Your task to perform on an android device: open app "Adobe Acrobat Reader: Edit PDF" (install if not already installed) Image 0: 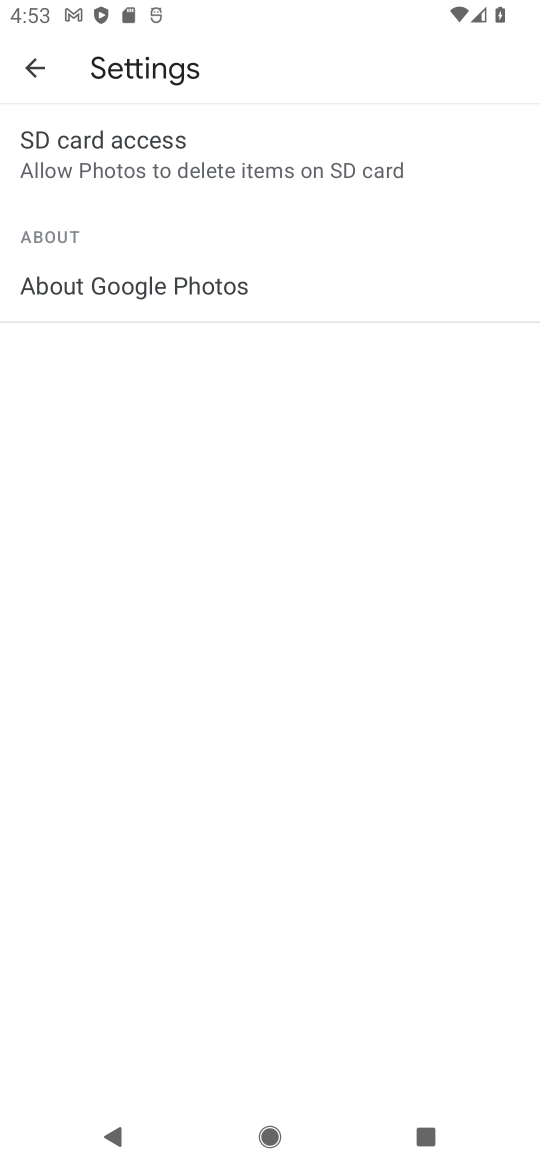
Step 0: press home button
Your task to perform on an android device: open app "Adobe Acrobat Reader: Edit PDF" (install if not already installed) Image 1: 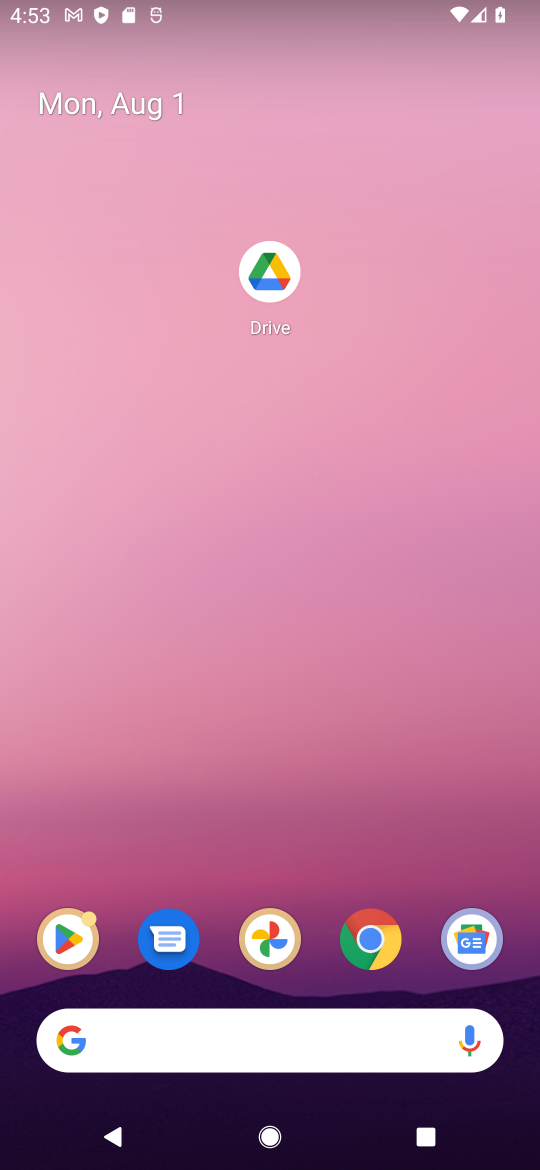
Step 1: click (51, 946)
Your task to perform on an android device: open app "Adobe Acrobat Reader: Edit PDF" (install if not already installed) Image 2: 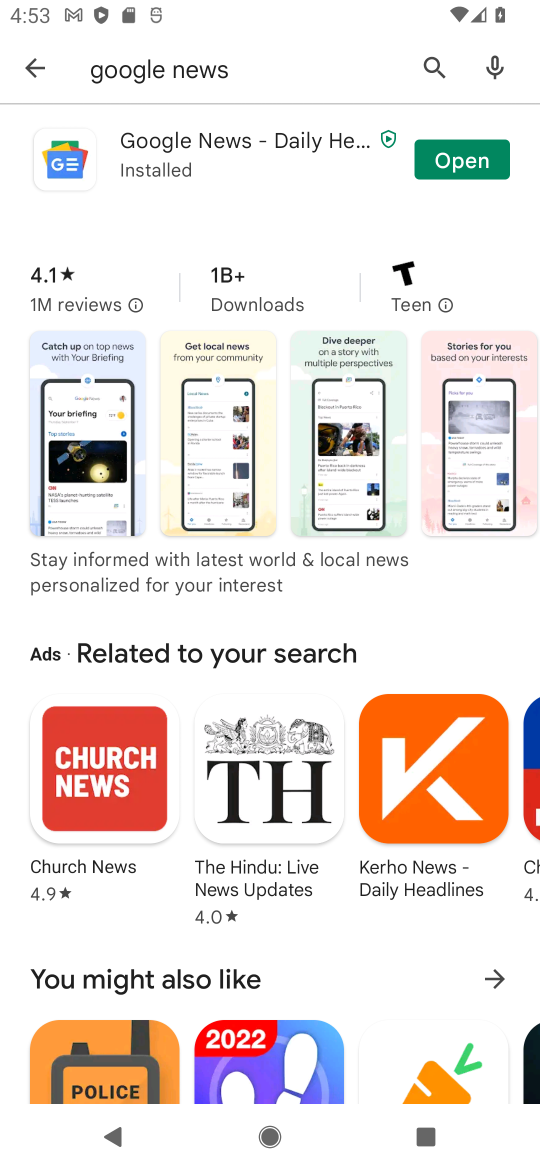
Step 2: click (427, 60)
Your task to perform on an android device: open app "Adobe Acrobat Reader: Edit PDF" (install if not already installed) Image 3: 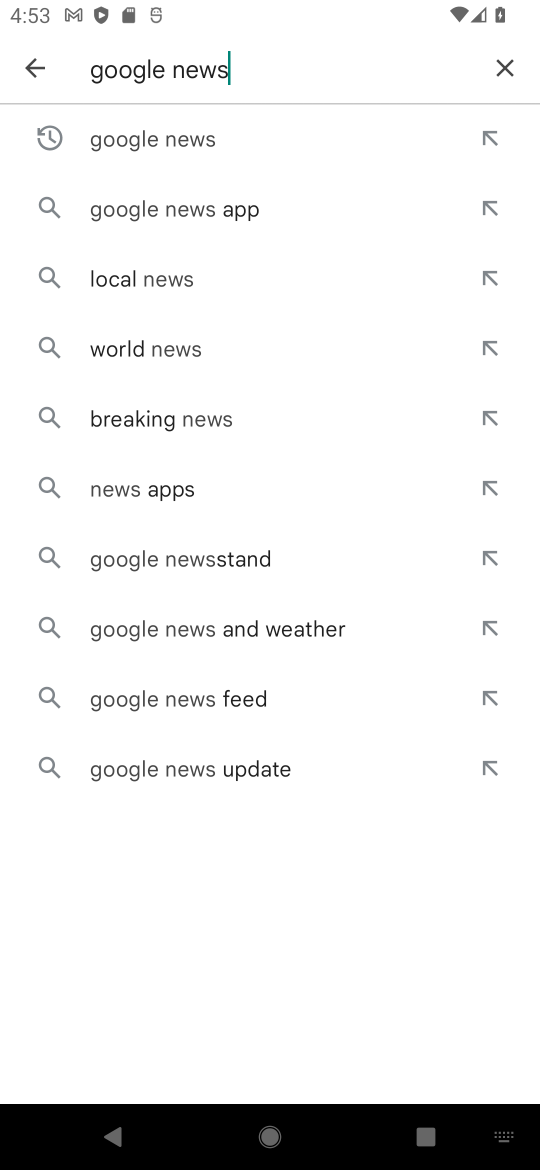
Step 3: click (507, 70)
Your task to perform on an android device: open app "Adobe Acrobat Reader: Edit PDF" (install if not already installed) Image 4: 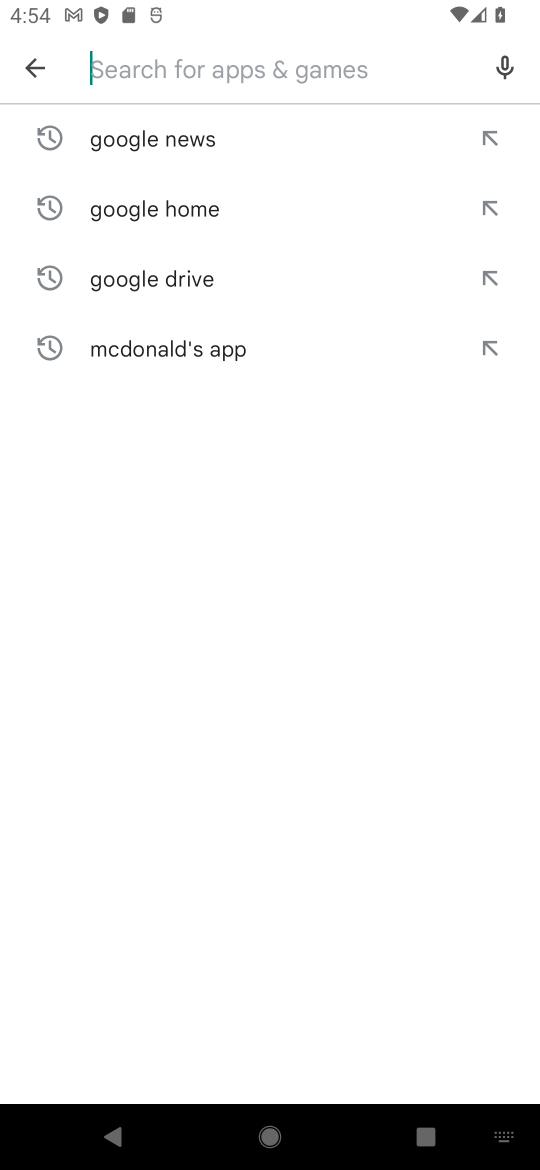
Step 4: click (507, 70)
Your task to perform on an android device: open app "Adobe Acrobat Reader: Edit PDF" (install if not already installed) Image 5: 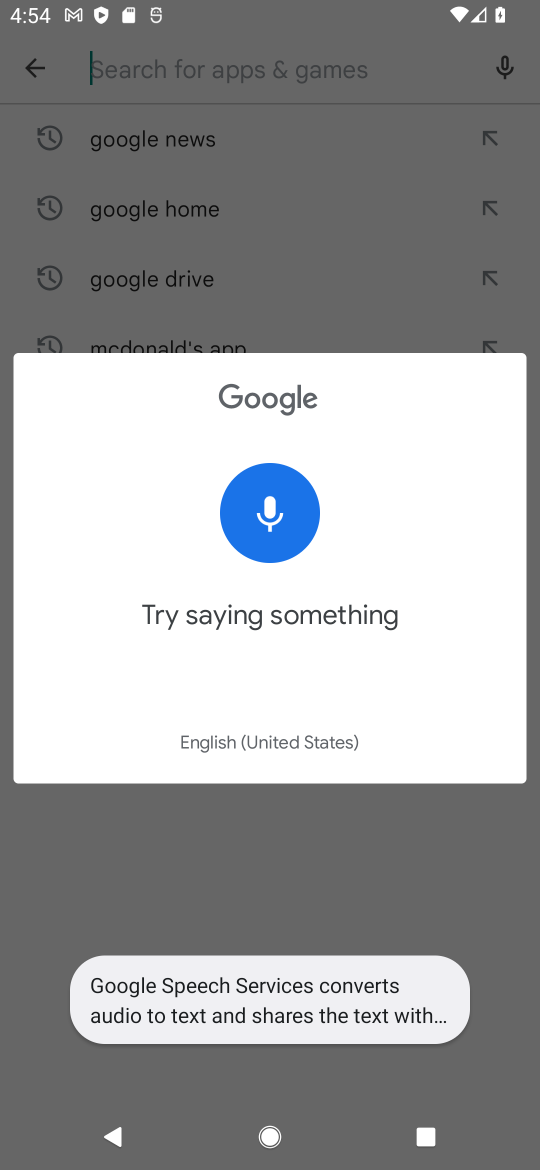
Step 5: click (432, 181)
Your task to perform on an android device: open app "Adobe Acrobat Reader: Edit PDF" (install if not already installed) Image 6: 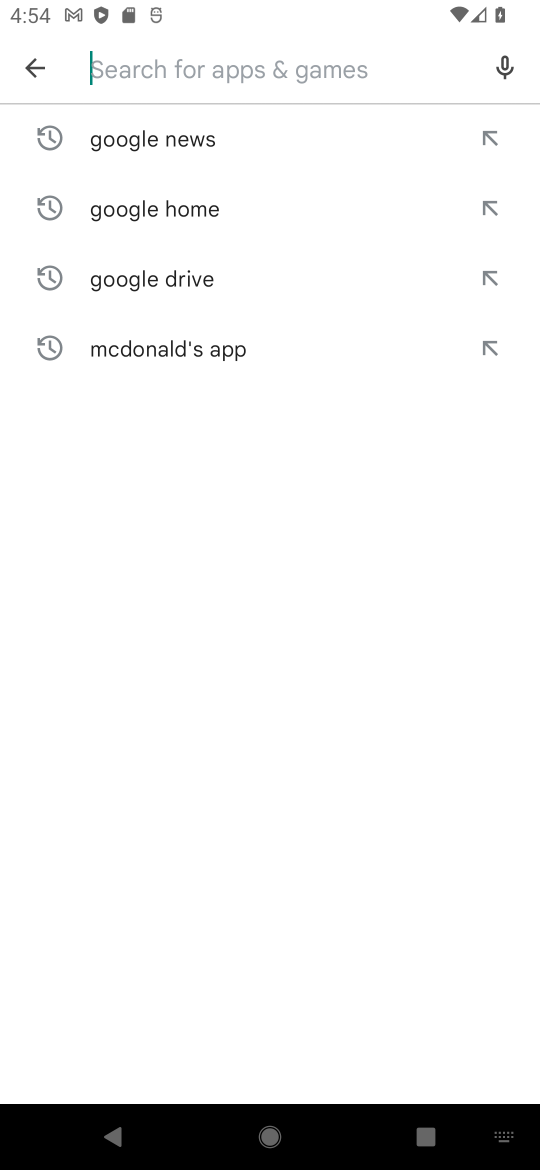
Step 6: click (337, 61)
Your task to perform on an android device: open app "Adobe Acrobat Reader: Edit PDF" (install if not already installed) Image 7: 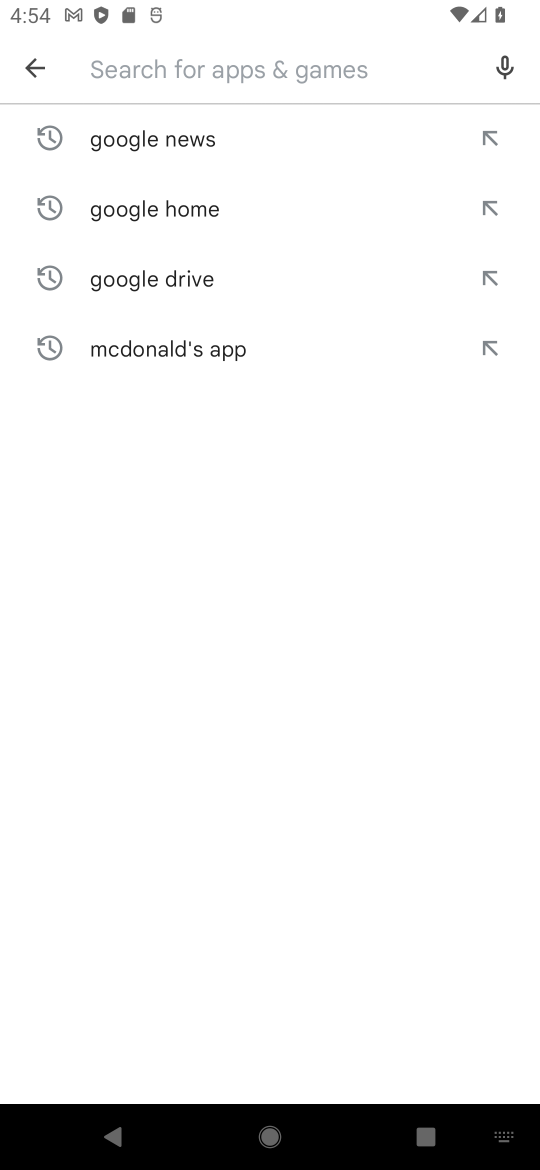
Step 7: type "adobe acrobat"
Your task to perform on an android device: open app "Adobe Acrobat Reader: Edit PDF" (install if not already installed) Image 8: 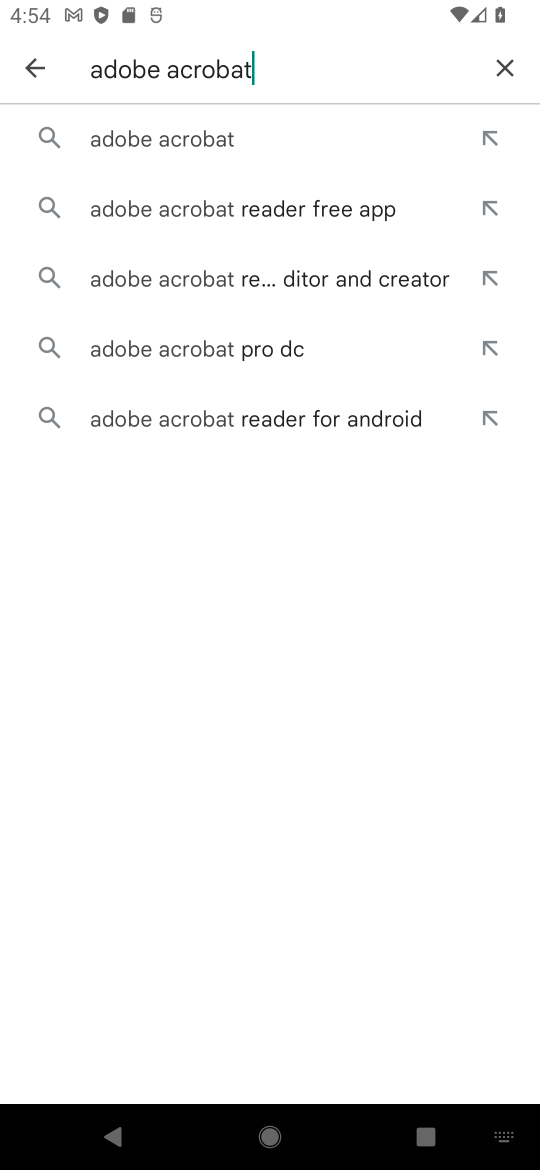
Step 8: click (263, 138)
Your task to perform on an android device: open app "Adobe Acrobat Reader: Edit PDF" (install if not already installed) Image 9: 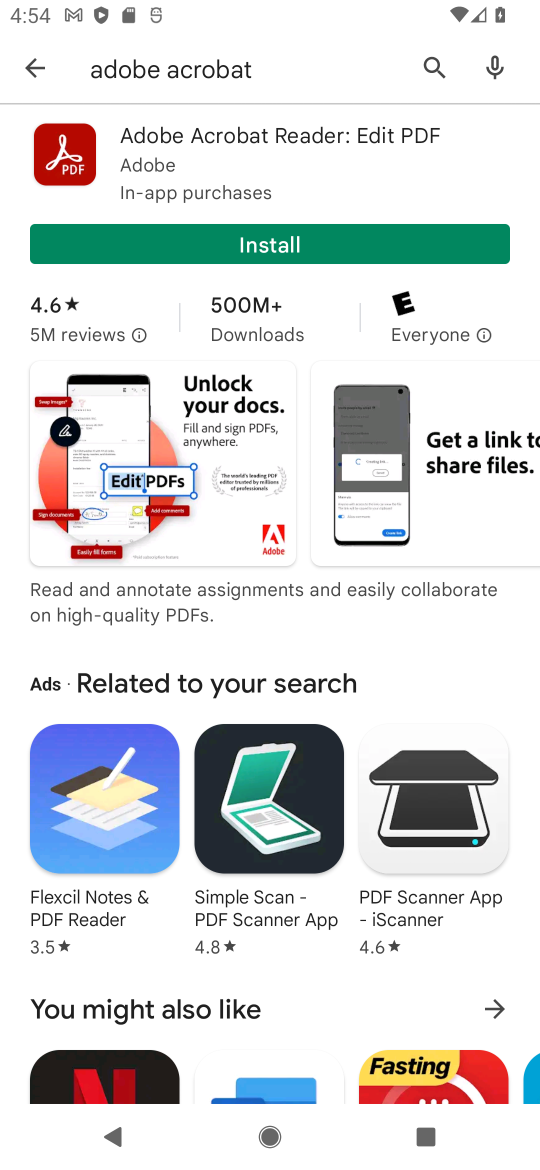
Step 9: click (334, 248)
Your task to perform on an android device: open app "Adobe Acrobat Reader: Edit PDF" (install if not already installed) Image 10: 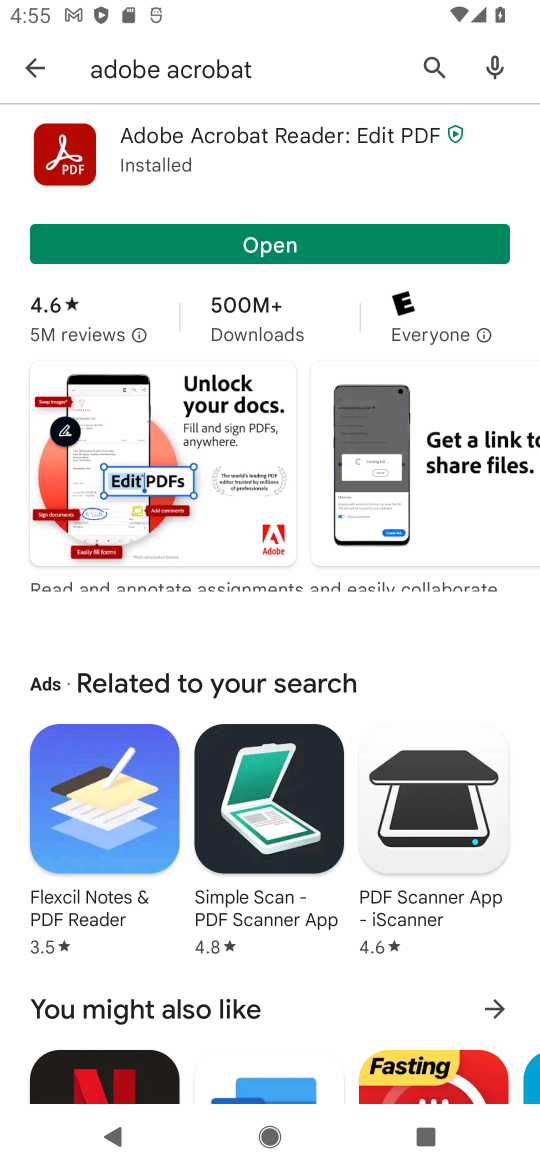
Step 10: click (338, 256)
Your task to perform on an android device: open app "Adobe Acrobat Reader: Edit PDF" (install if not already installed) Image 11: 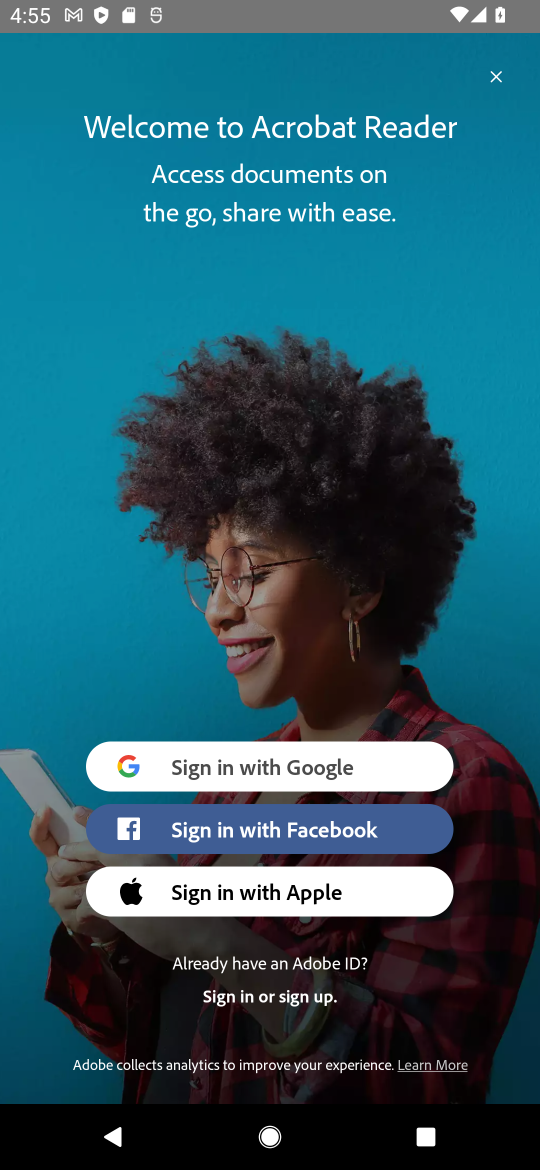
Step 11: task complete